Your task to perform on an android device: allow notifications from all sites in the chrome app Image 0: 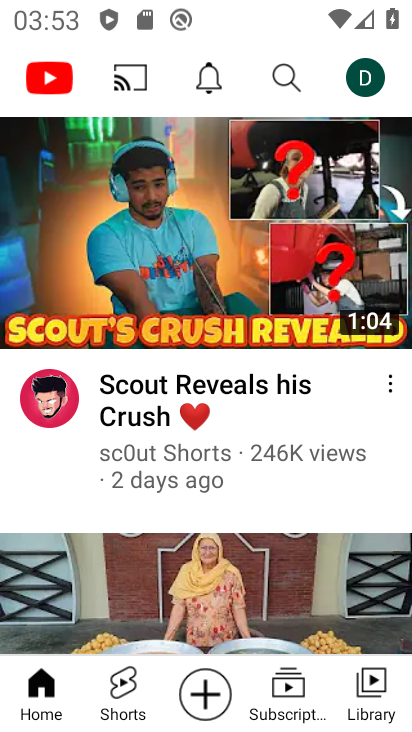
Step 0: press back button
Your task to perform on an android device: allow notifications from all sites in the chrome app Image 1: 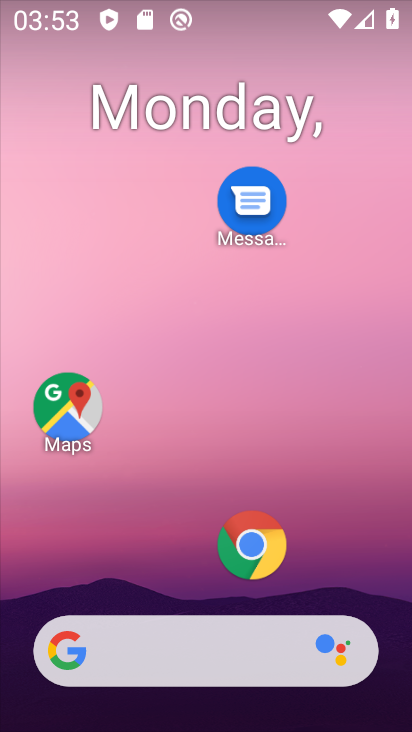
Step 1: click (246, 548)
Your task to perform on an android device: allow notifications from all sites in the chrome app Image 2: 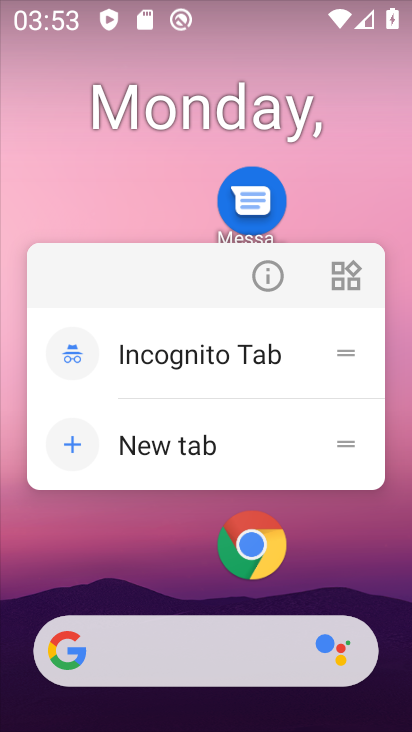
Step 2: click (255, 545)
Your task to perform on an android device: allow notifications from all sites in the chrome app Image 3: 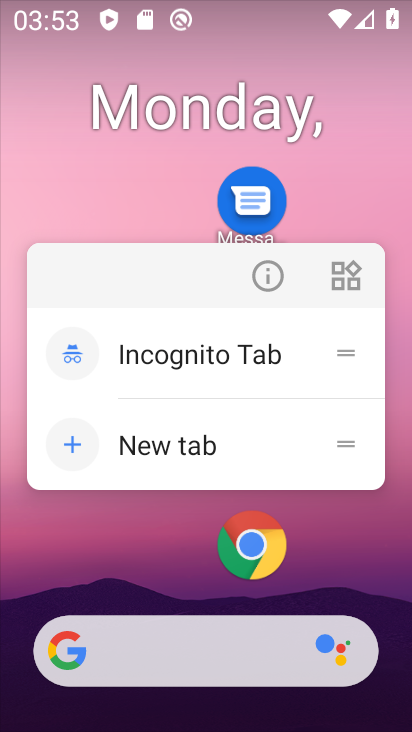
Step 3: click (253, 551)
Your task to perform on an android device: allow notifications from all sites in the chrome app Image 4: 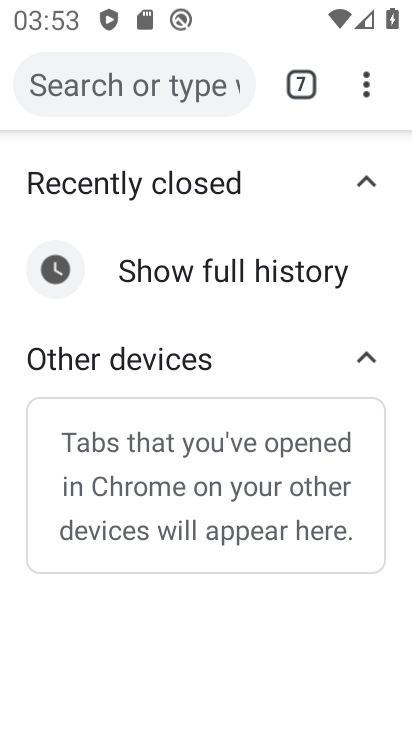
Step 4: drag from (372, 81) to (108, 590)
Your task to perform on an android device: allow notifications from all sites in the chrome app Image 5: 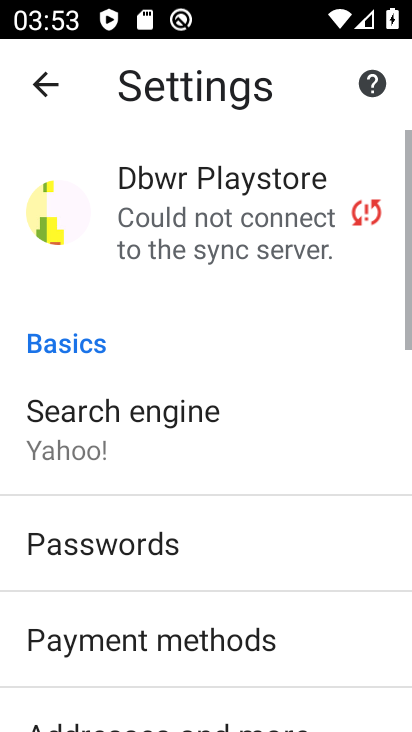
Step 5: drag from (156, 593) to (280, 110)
Your task to perform on an android device: allow notifications from all sites in the chrome app Image 6: 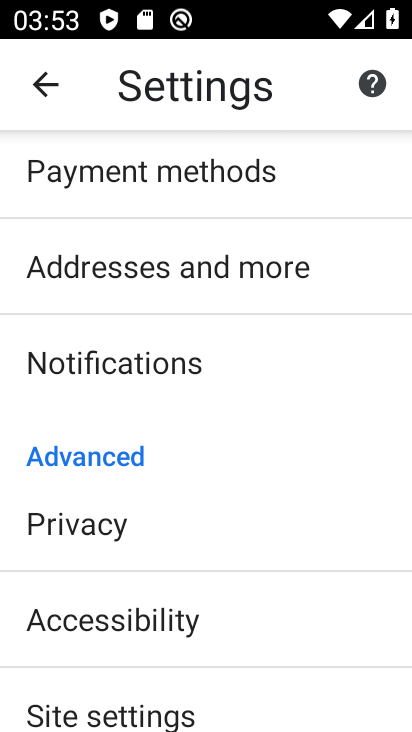
Step 6: click (105, 709)
Your task to perform on an android device: allow notifications from all sites in the chrome app Image 7: 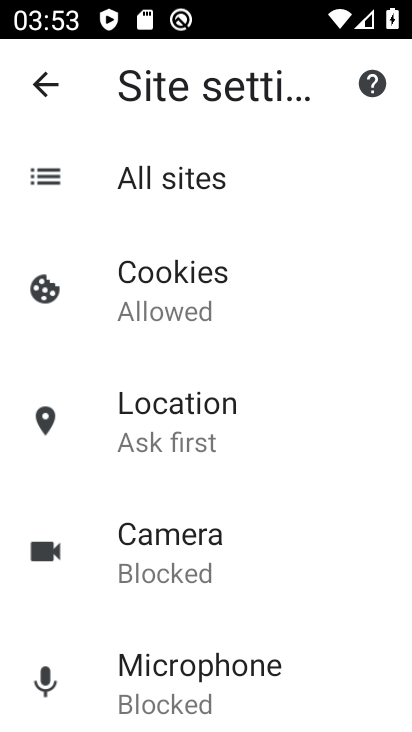
Step 7: drag from (167, 672) to (296, 213)
Your task to perform on an android device: allow notifications from all sites in the chrome app Image 8: 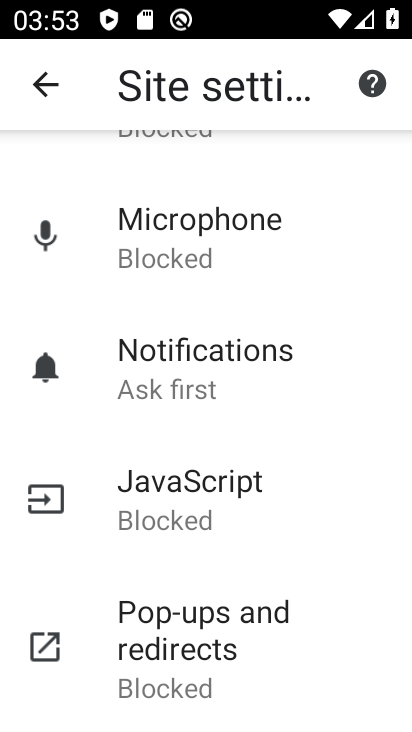
Step 8: click (181, 369)
Your task to perform on an android device: allow notifications from all sites in the chrome app Image 9: 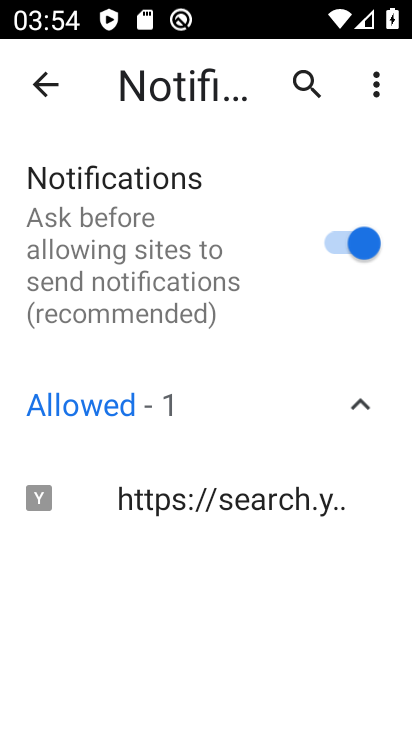
Step 9: task complete